Your task to perform on an android device: toggle notifications settings in the gmail app Image 0: 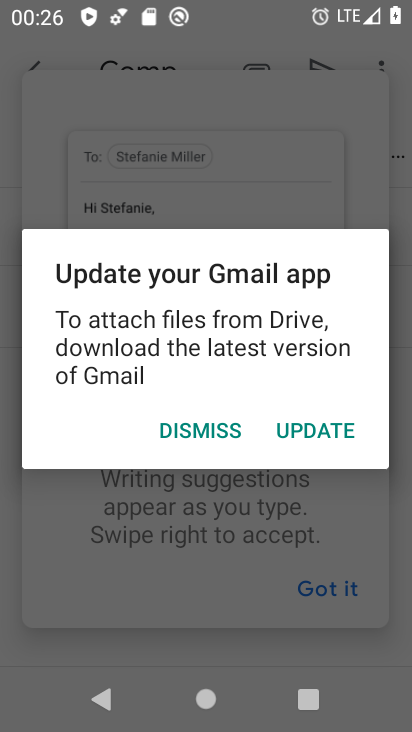
Step 0: press home button
Your task to perform on an android device: toggle notifications settings in the gmail app Image 1: 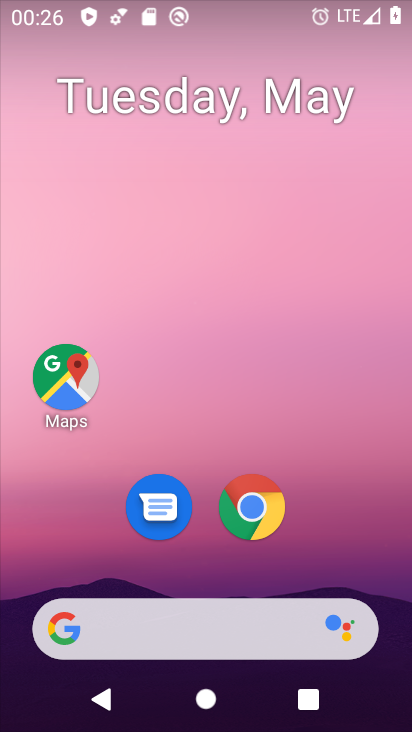
Step 1: drag from (203, 589) to (201, 155)
Your task to perform on an android device: toggle notifications settings in the gmail app Image 2: 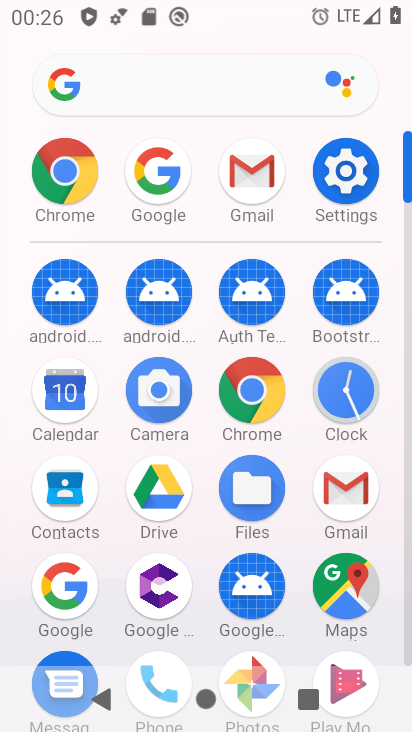
Step 2: click (257, 175)
Your task to perform on an android device: toggle notifications settings in the gmail app Image 3: 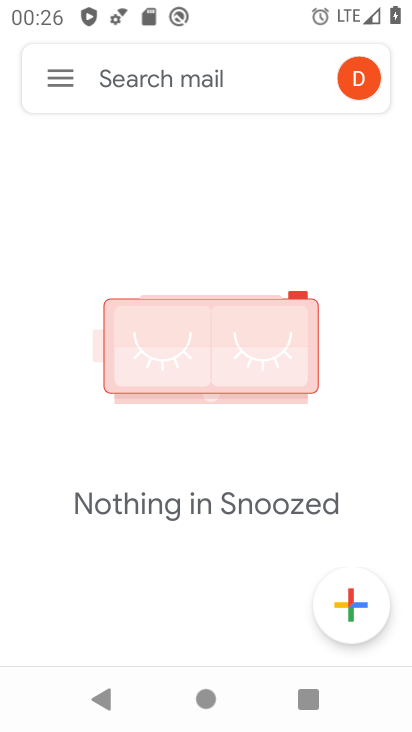
Step 3: click (65, 79)
Your task to perform on an android device: toggle notifications settings in the gmail app Image 4: 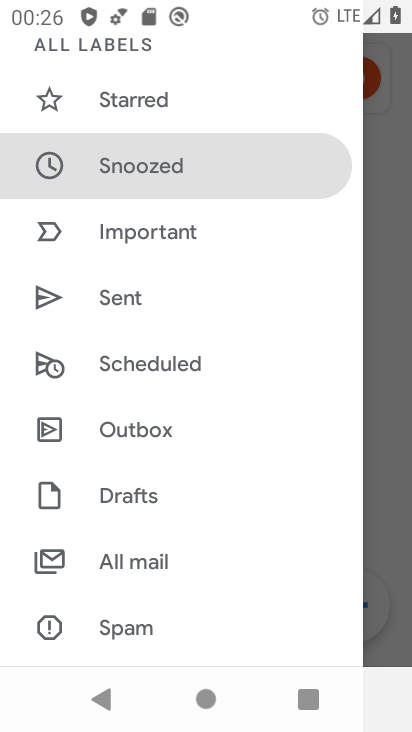
Step 4: drag from (157, 639) to (139, 241)
Your task to perform on an android device: toggle notifications settings in the gmail app Image 5: 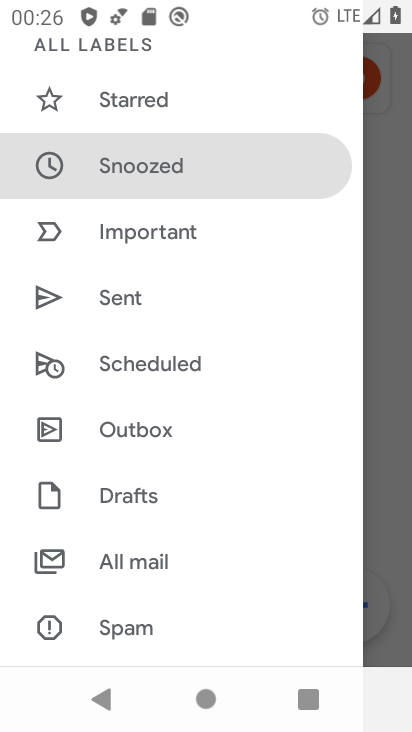
Step 5: drag from (146, 613) to (132, 233)
Your task to perform on an android device: toggle notifications settings in the gmail app Image 6: 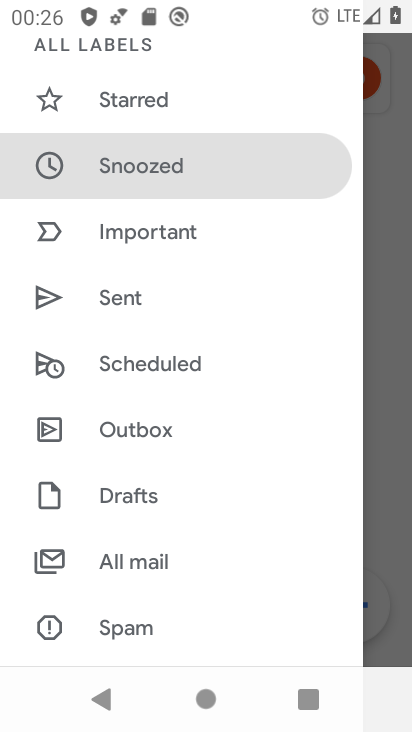
Step 6: drag from (111, 614) to (127, 183)
Your task to perform on an android device: toggle notifications settings in the gmail app Image 7: 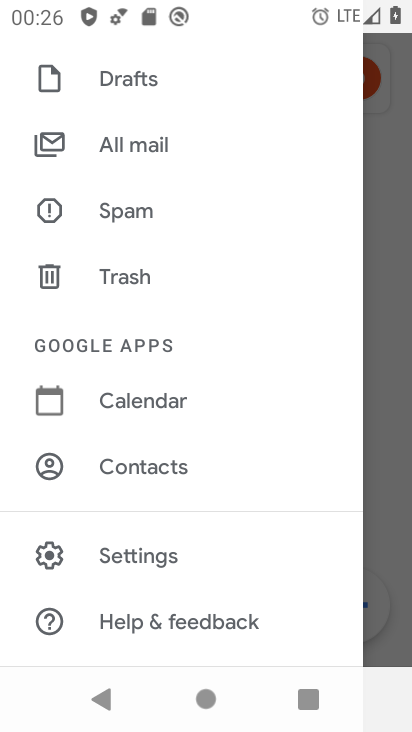
Step 7: click (137, 553)
Your task to perform on an android device: toggle notifications settings in the gmail app Image 8: 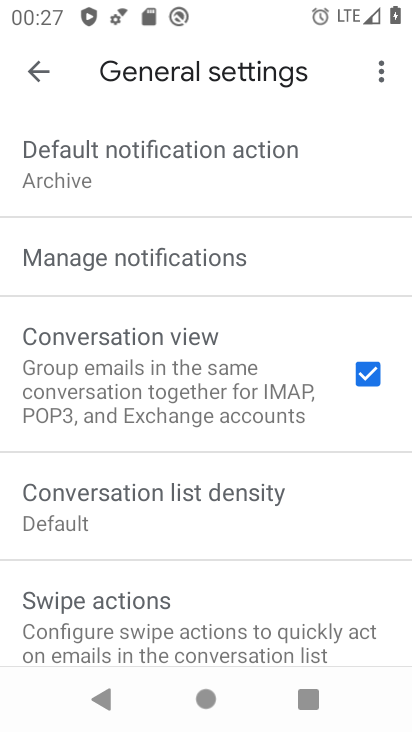
Step 8: click (123, 231)
Your task to perform on an android device: toggle notifications settings in the gmail app Image 9: 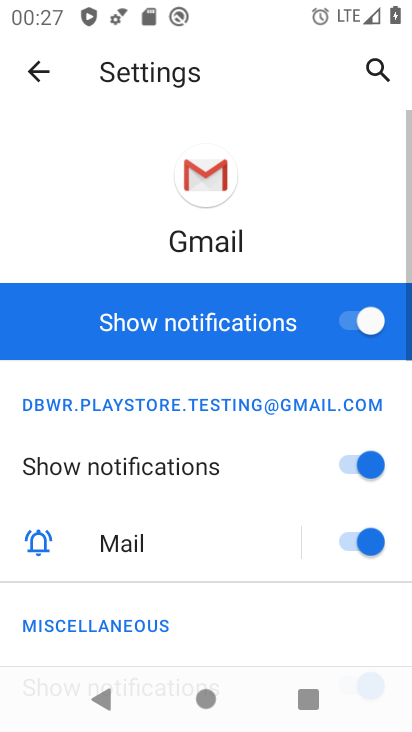
Step 9: click (348, 319)
Your task to perform on an android device: toggle notifications settings in the gmail app Image 10: 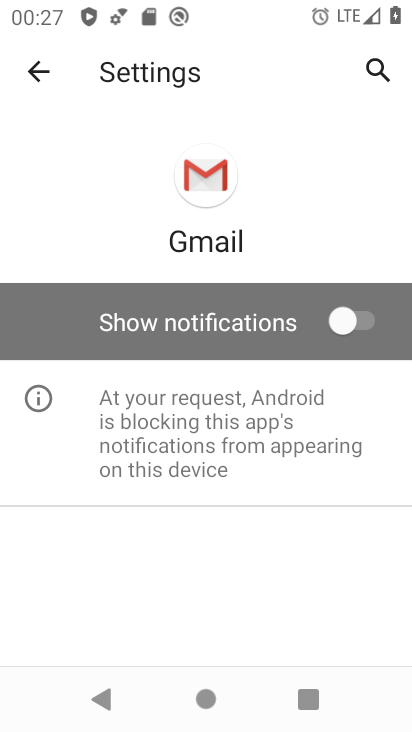
Step 10: task complete